Your task to perform on an android device: turn smart compose on in the gmail app Image 0: 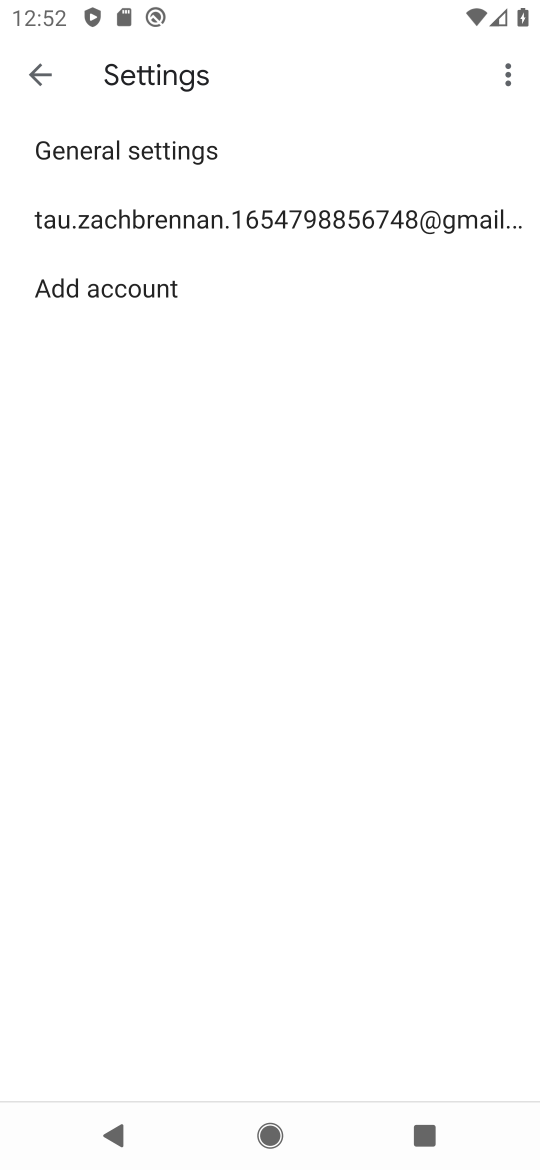
Step 0: press home button
Your task to perform on an android device: turn smart compose on in the gmail app Image 1: 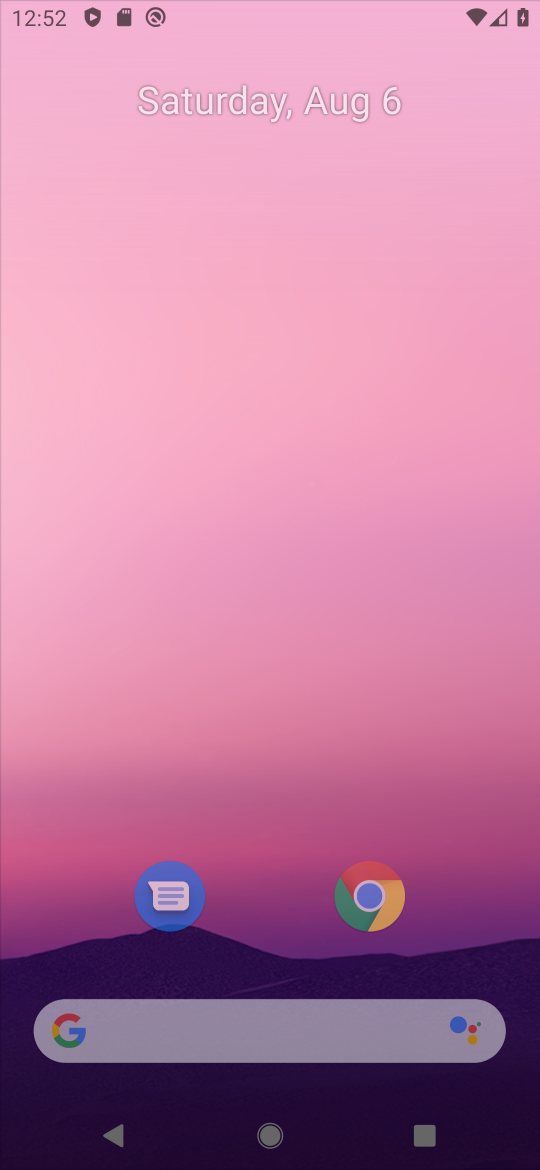
Step 1: drag from (339, 564) to (364, 344)
Your task to perform on an android device: turn smart compose on in the gmail app Image 2: 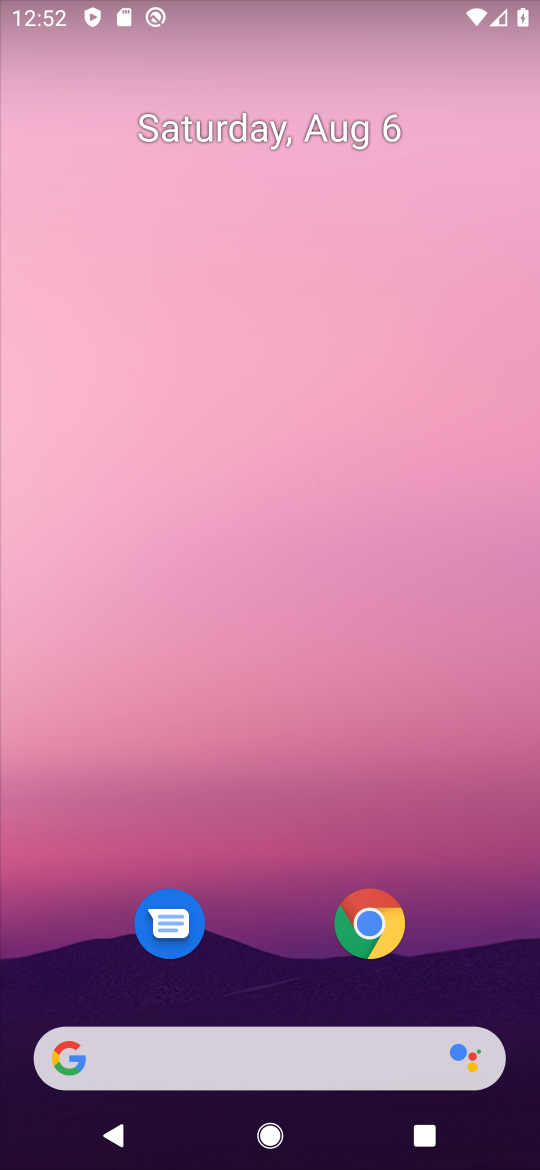
Step 2: drag from (265, 927) to (348, 220)
Your task to perform on an android device: turn smart compose on in the gmail app Image 3: 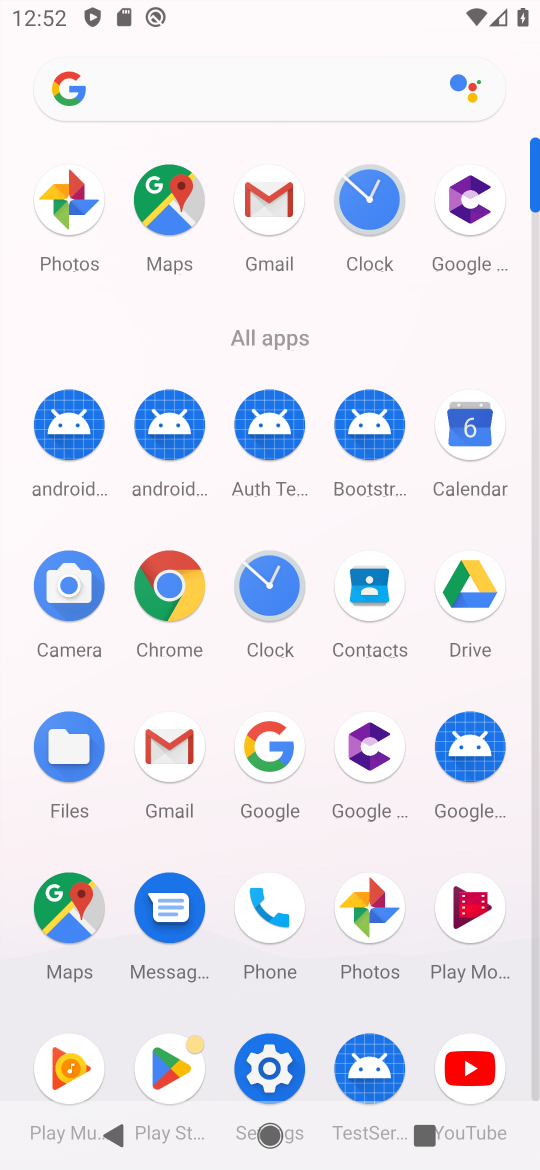
Step 3: click (175, 736)
Your task to perform on an android device: turn smart compose on in the gmail app Image 4: 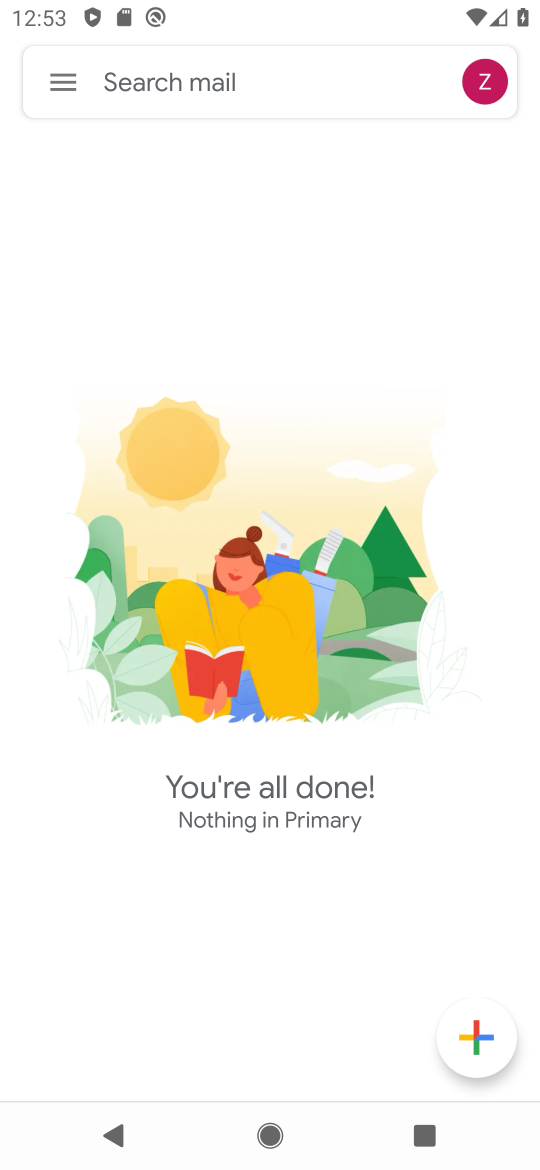
Step 4: click (339, 412)
Your task to perform on an android device: turn smart compose on in the gmail app Image 5: 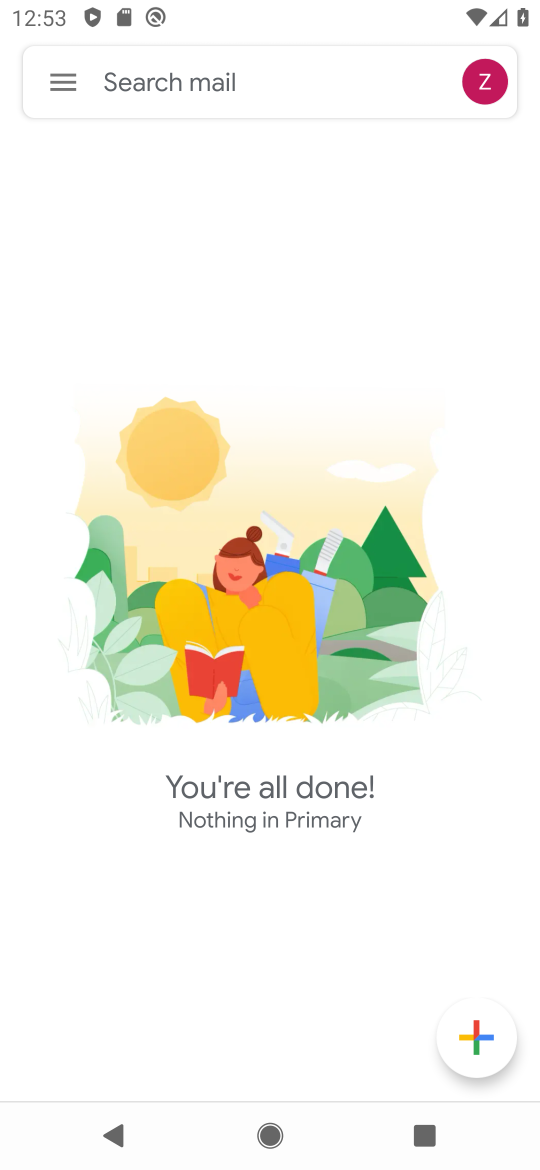
Step 5: click (62, 80)
Your task to perform on an android device: turn smart compose on in the gmail app Image 6: 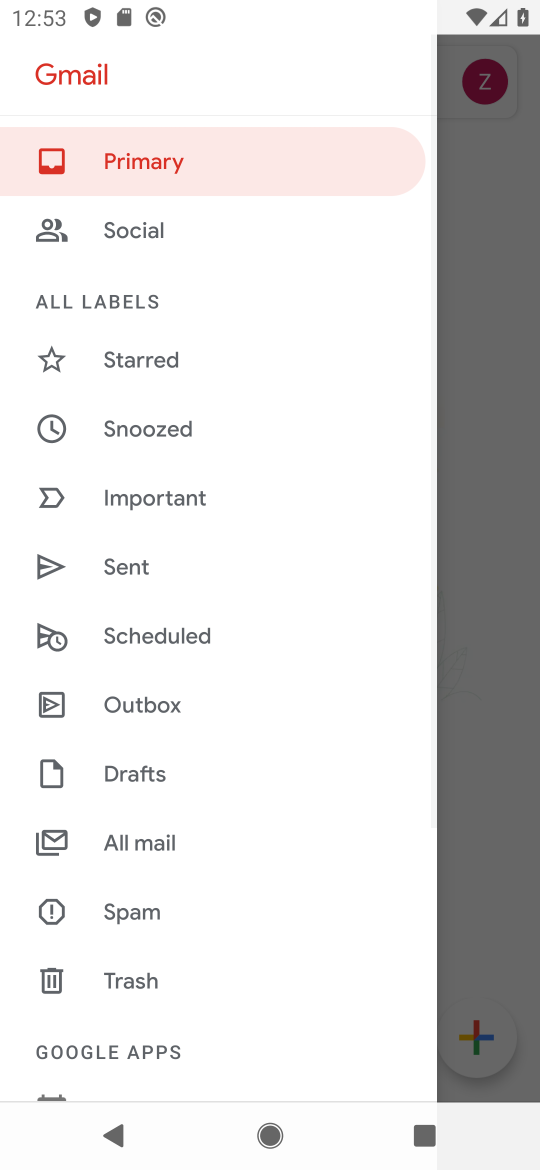
Step 6: drag from (155, 752) to (179, 329)
Your task to perform on an android device: turn smart compose on in the gmail app Image 7: 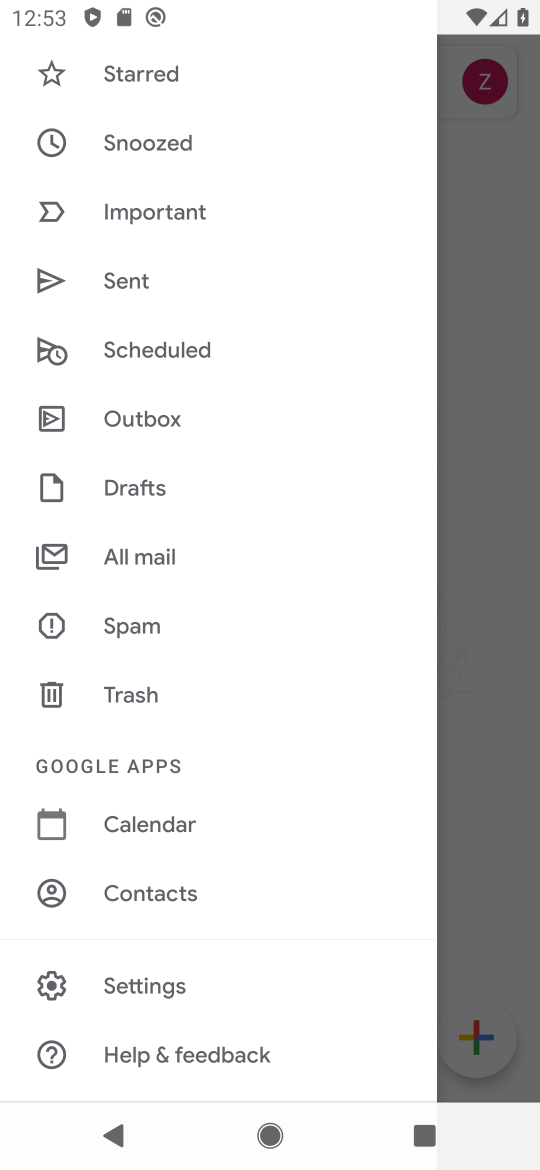
Step 7: click (184, 984)
Your task to perform on an android device: turn smart compose on in the gmail app Image 8: 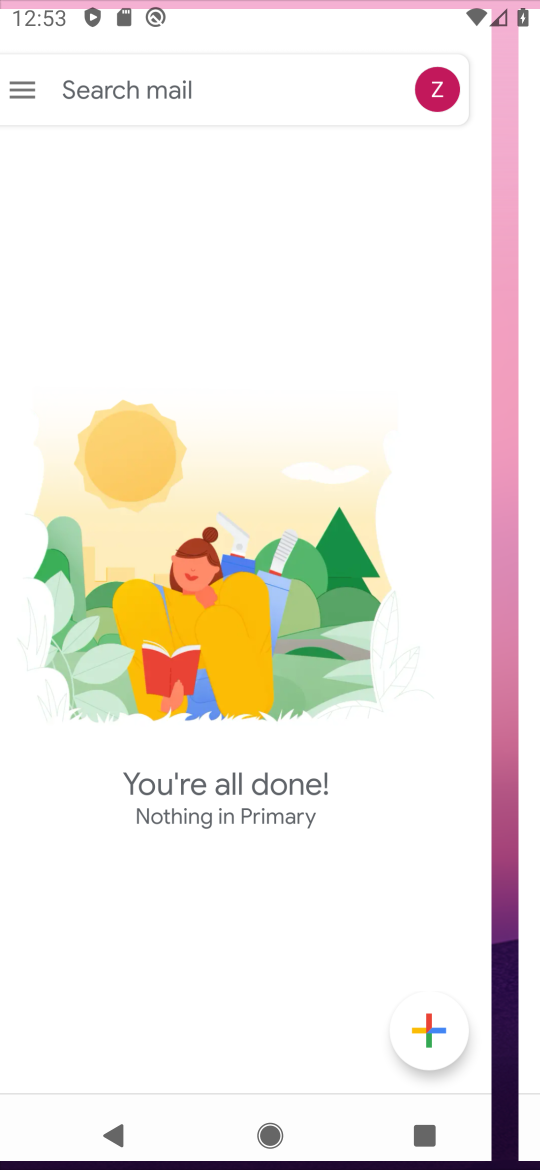
Step 8: drag from (191, 946) to (303, 267)
Your task to perform on an android device: turn smart compose on in the gmail app Image 9: 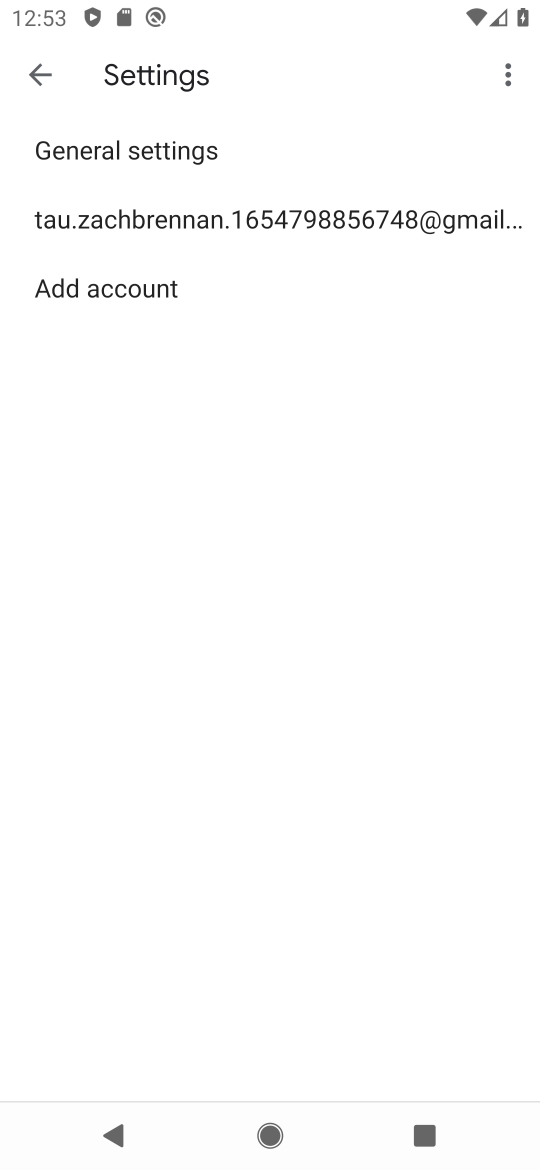
Step 9: click (248, 222)
Your task to perform on an android device: turn smart compose on in the gmail app Image 10: 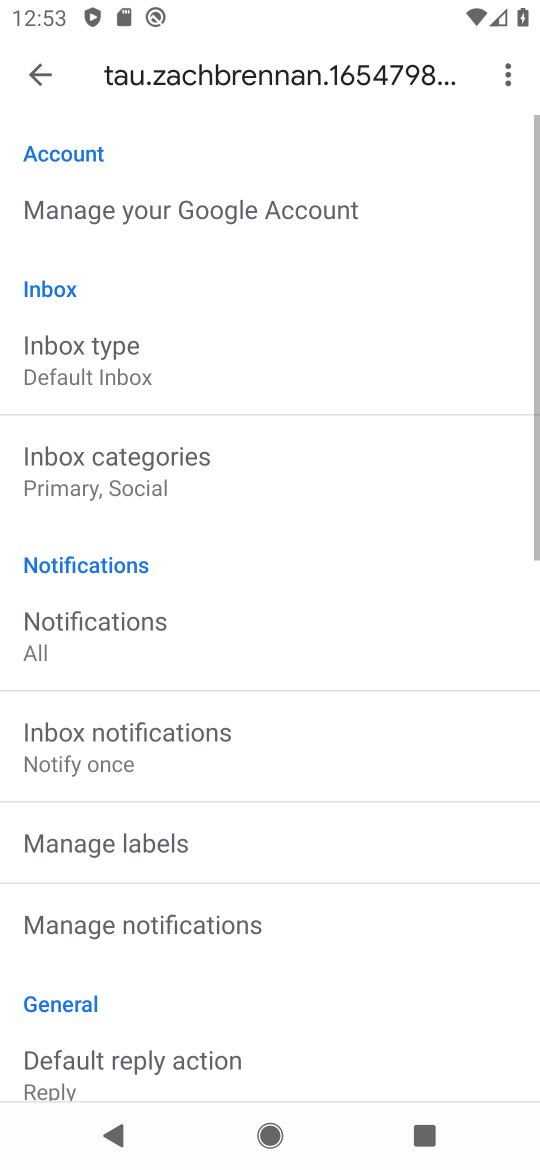
Step 10: drag from (239, 917) to (205, 213)
Your task to perform on an android device: turn smart compose on in the gmail app Image 11: 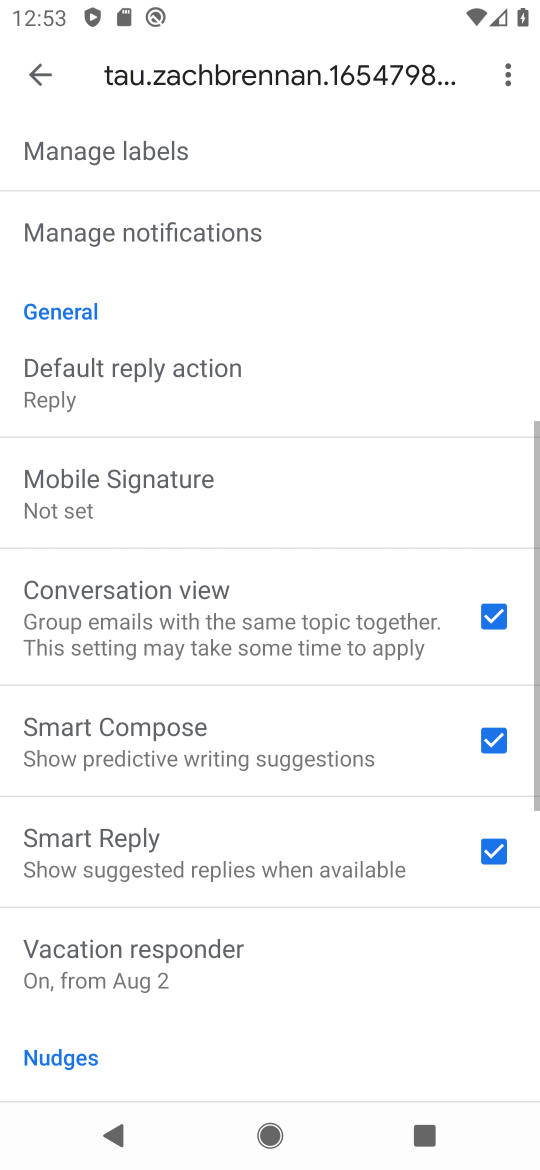
Step 11: drag from (250, 853) to (254, 393)
Your task to perform on an android device: turn smart compose on in the gmail app Image 12: 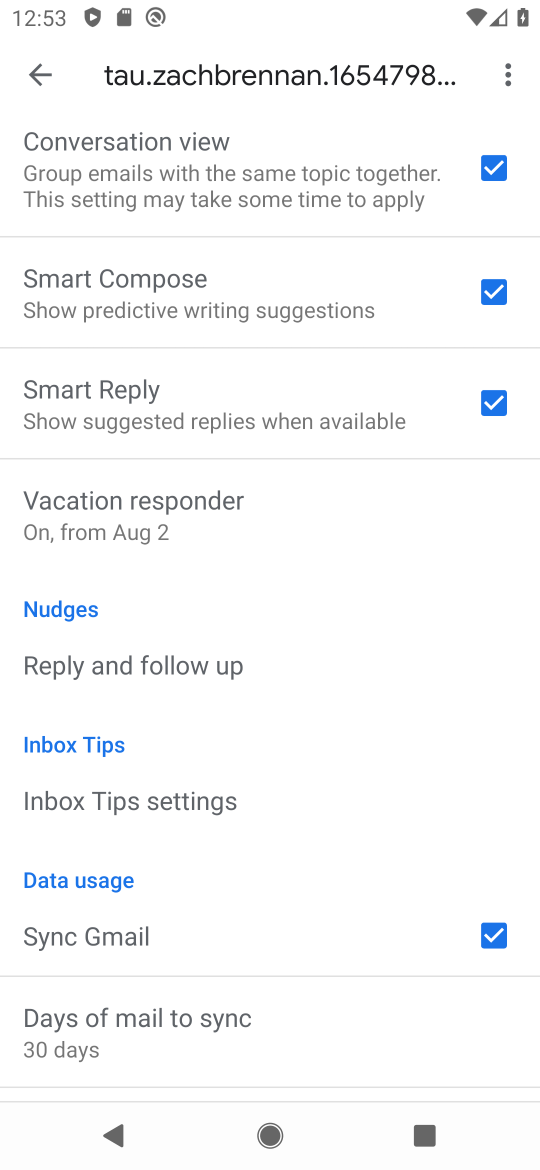
Step 12: click (466, 277)
Your task to perform on an android device: turn smart compose on in the gmail app Image 13: 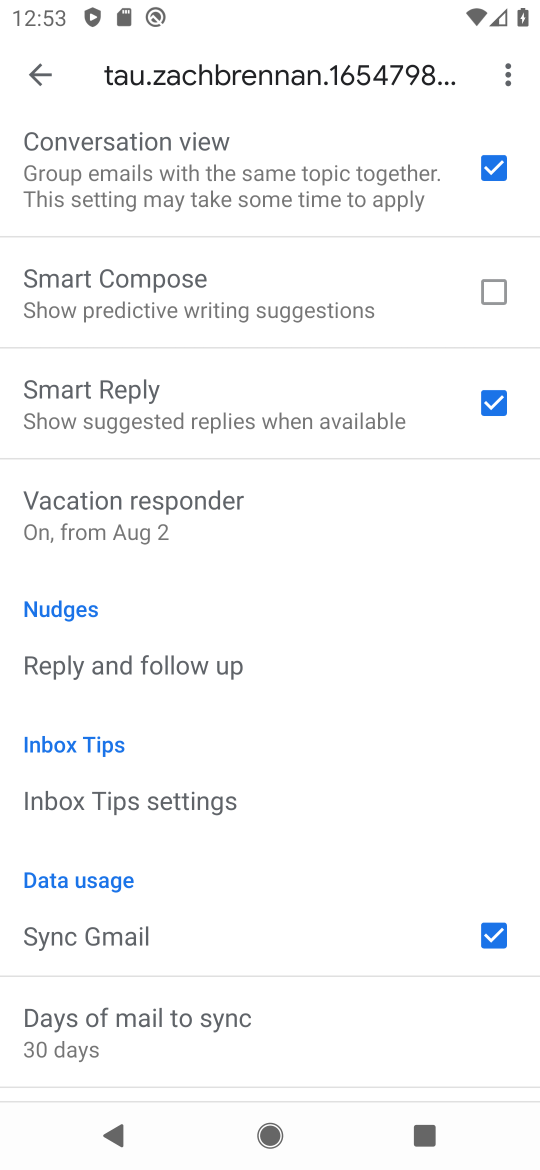
Step 13: task complete